Your task to perform on an android device: Go to accessibility settings Image 0: 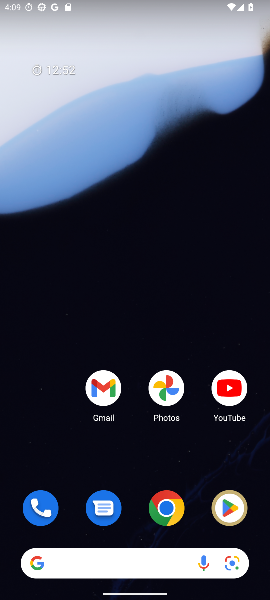
Step 0: drag from (139, 538) to (139, 111)
Your task to perform on an android device: Go to accessibility settings Image 1: 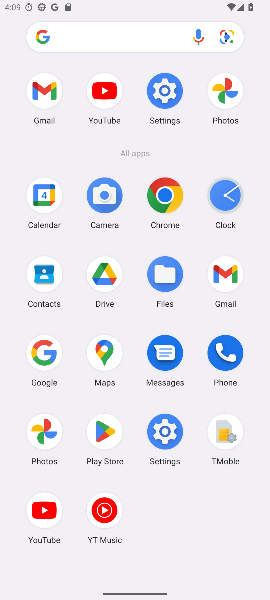
Step 1: click (159, 442)
Your task to perform on an android device: Go to accessibility settings Image 2: 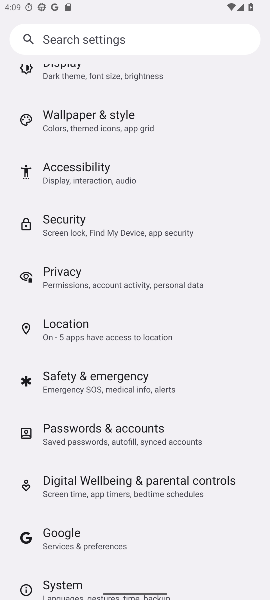
Step 2: drag from (113, 457) to (144, 179)
Your task to perform on an android device: Go to accessibility settings Image 3: 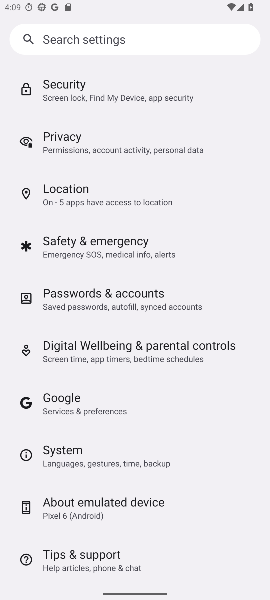
Step 3: drag from (131, 165) to (119, 462)
Your task to perform on an android device: Go to accessibility settings Image 4: 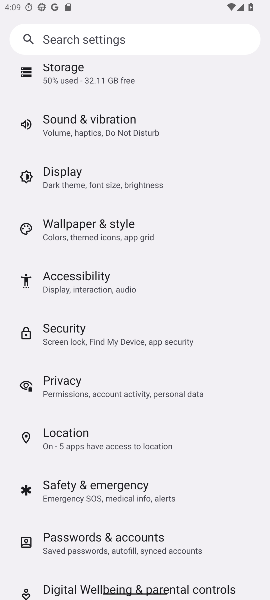
Step 4: click (63, 283)
Your task to perform on an android device: Go to accessibility settings Image 5: 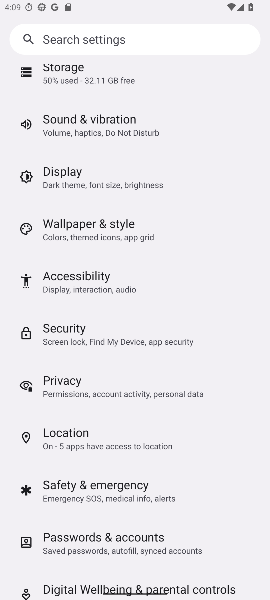
Step 5: click (63, 283)
Your task to perform on an android device: Go to accessibility settings Image 6: 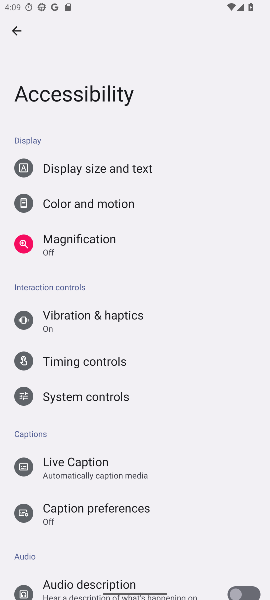
Step 6: task complete